Your task to perform on an android device: Open calendar and show me the fourth week of next month Image 0: 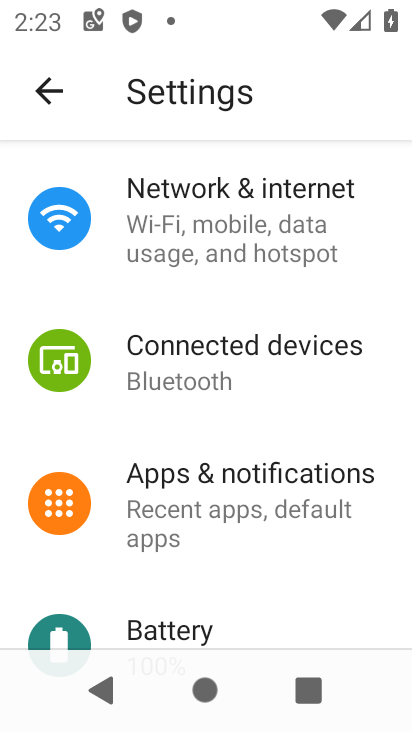
Step 0: press home button
Your task to perform on an android device: Open calendar and show me the fourth week of next month Image 1: 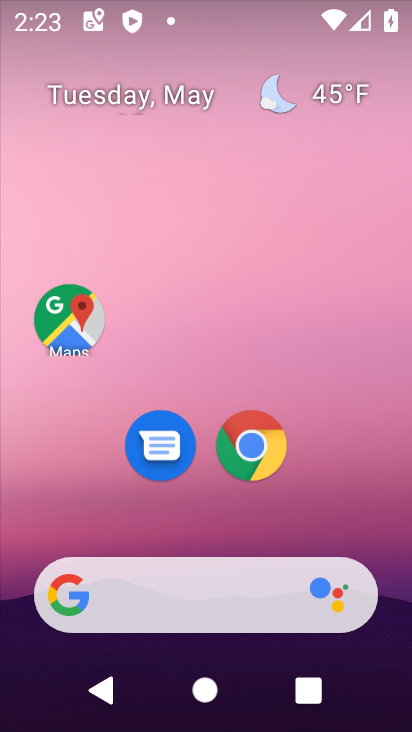
Step 1: drag from (169, 521) to (267, 86)
Your task to perform on an android device: Open calendar and show me the fourth week of next month Image 2: 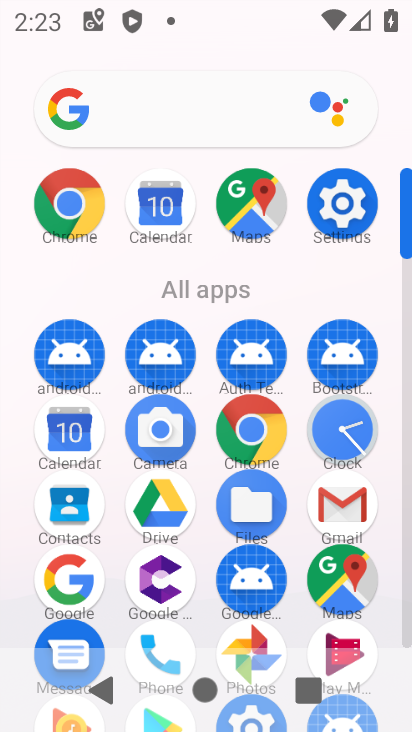
Step 2: click (152, 211)
Your task to perform on an android device: Open calendar and show me the fourth week of next month Image 3: 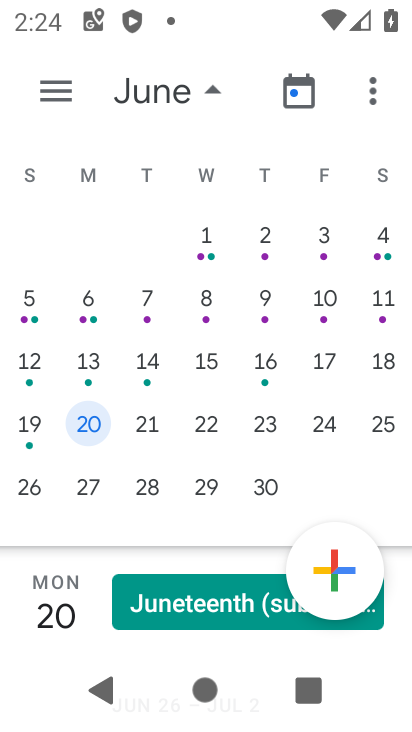
Step 3: click (89, 428)
Your task to perform on an android device: Open calendar and show me the fourth week of next month Image 4: 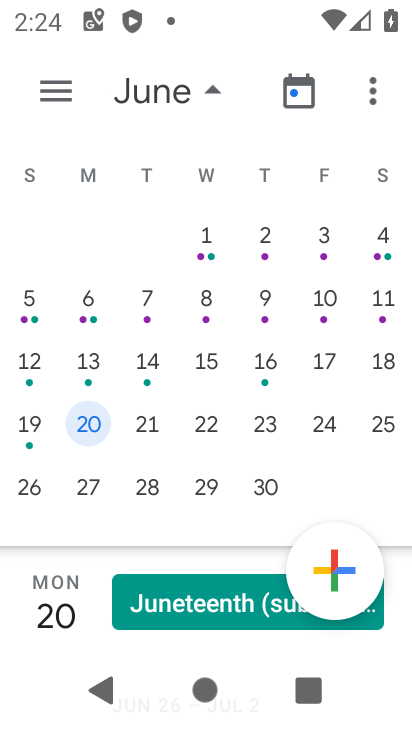
Step 4: task complete